Your task to perform on an android device: Open Google Maps Image 0: 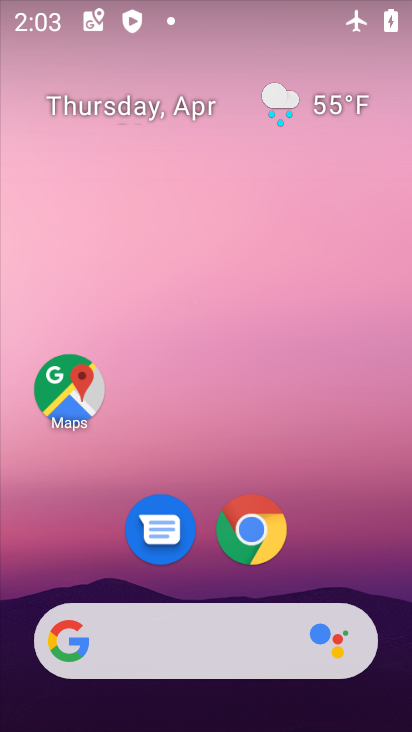
Step 0: click (124, 373)
Your task to perform on an android device: Open Google Maps Image 1: 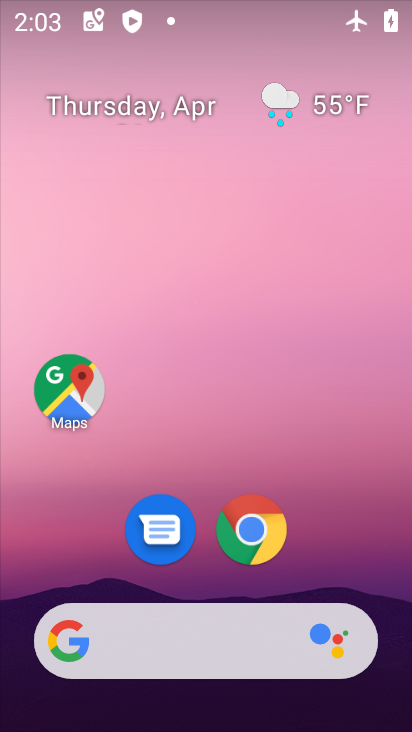
Step 1: click (84, 401)
Your task to perform on an android device: Open Google Maps Image 2: 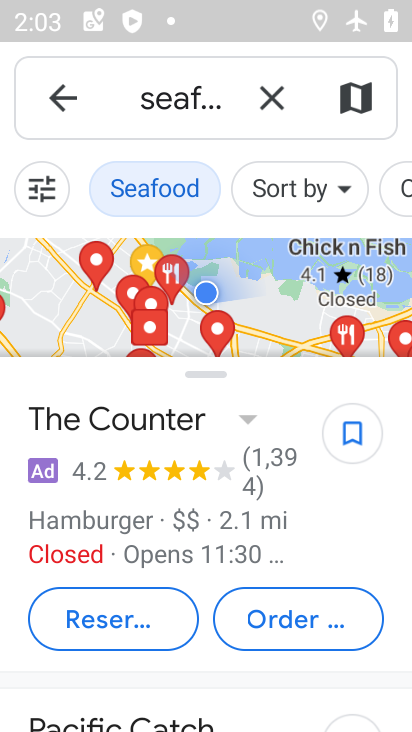
Step 2: click (260, 109)
Your task to perform on an android device: Open Google Maps Image 3: 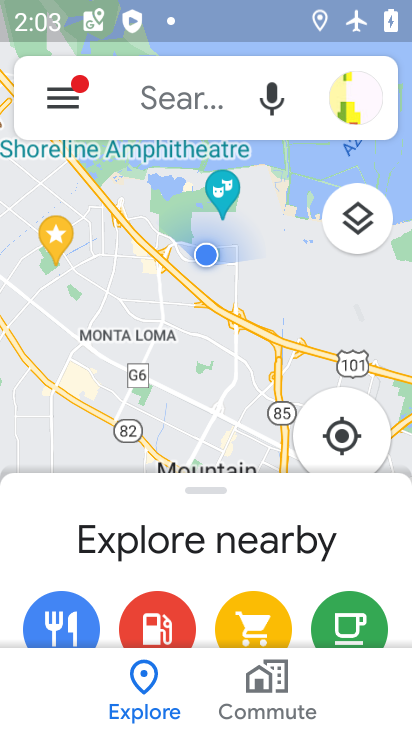
Step 3: click (55, 115)
Your task to perform on an android device: Open Google Maps Image 4: 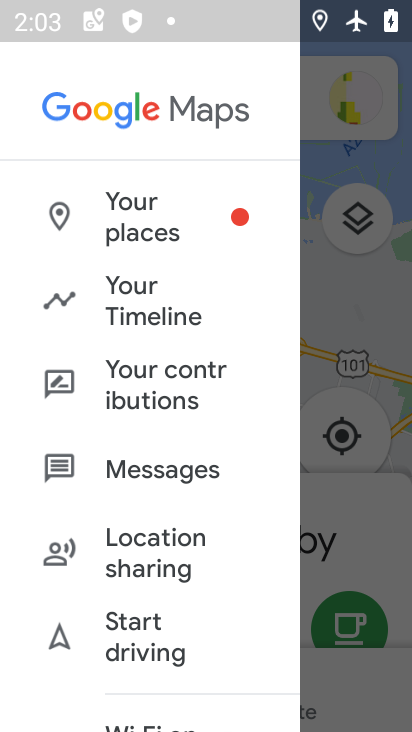
Step 4: task complete